Your task to perform on an android device: see sites visited before in the chrome app Image 0: 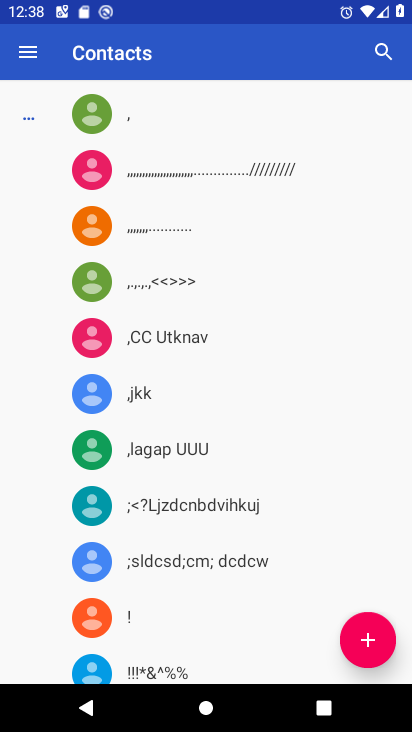
Step 0: press home button
Your task to perform on an android device: see sites visited before in the chrome app Image 1: 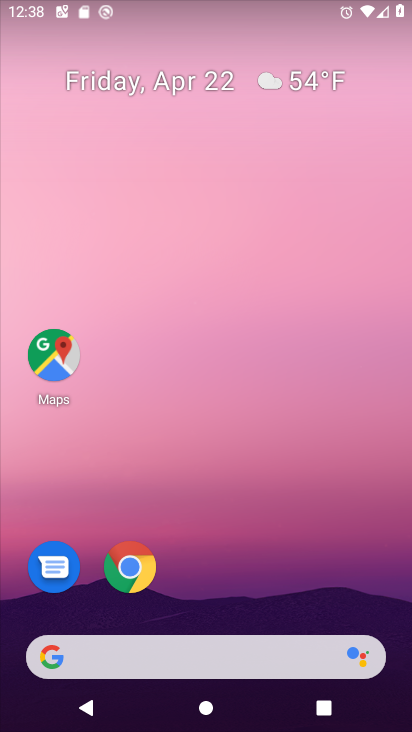
Step 1: click (149, 564)
Your task to perform on an android device: see sites visited before in the chrome app Image 2: 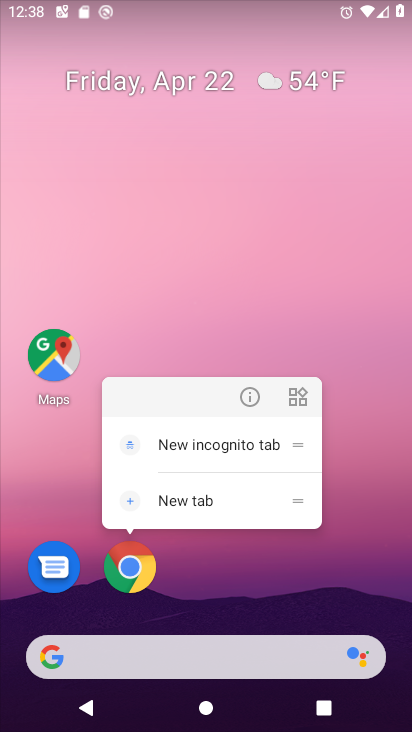
Step 2: click (136, 593)
Your task to perform on an android device: see sites visited before in the chrome app Image 3: 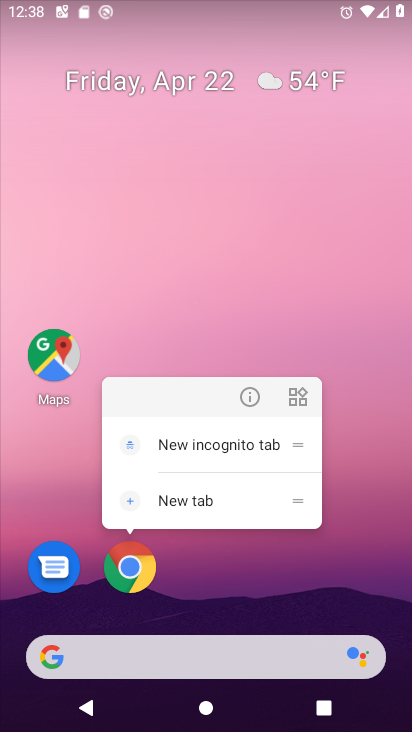
Step 3: click (120, 572)
Your task to perform on an android device: see sites visited before in the chrome app Image 4: 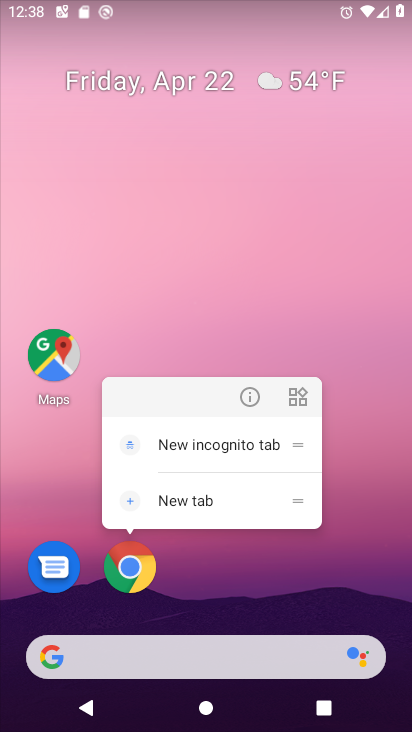
Step 4: click (127, 567)
Your task to perform on an android device: see sites visited before in the chrome app Image 5: 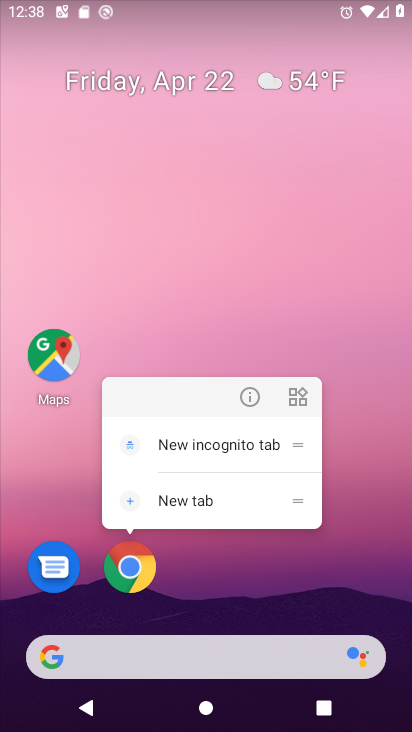
Step 5: click (127, 585)
Your task to perform on an android device: see sites visited before in the chrome app Image 6: 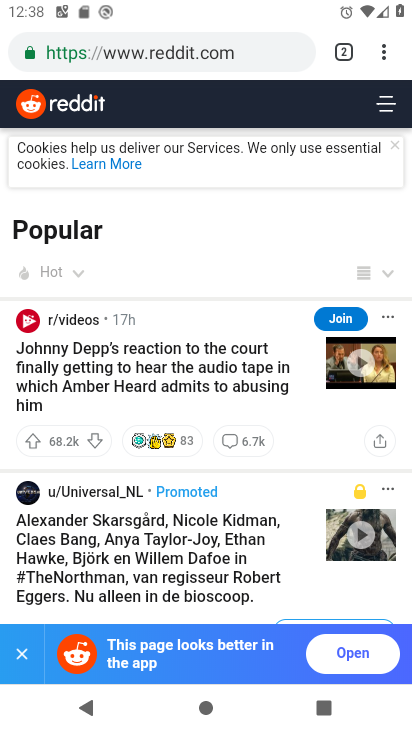
Step 6: click (392, 57)
Your task to perform on an android device: see sites visited before in the chrome app Image 7: 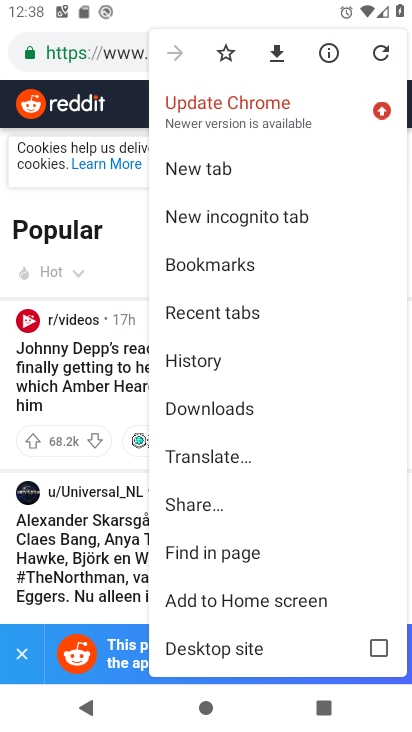
Step 7: drag from (249, 551) to (259, 288)
Your task to perform on an android device: see sites visited before in the chrome app Image 8: 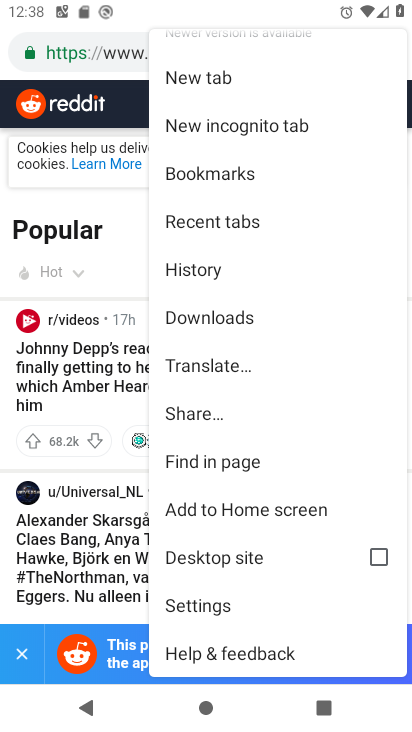
Step 8: click (206, 273)
Your task to perform on an android device: see sites visited before in the chrome app Image 9: 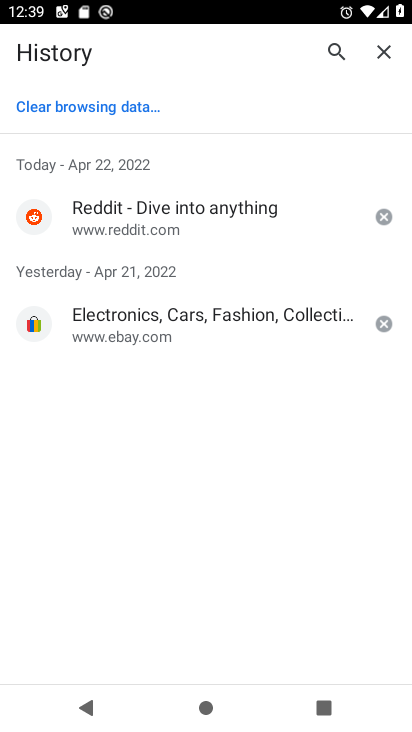
Step 9: task complete